Your task to perform on an android device: turn on wifi Image 0: 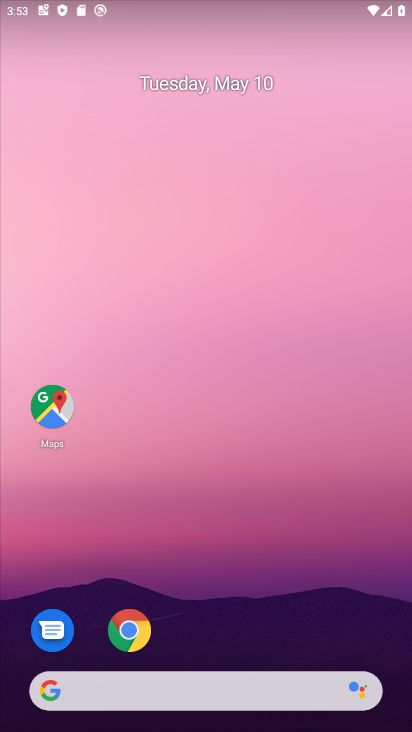
Step 0: drag from (219, 625) to (208, 108)
Your task to perform on an android device: turn on wifi Image 1: 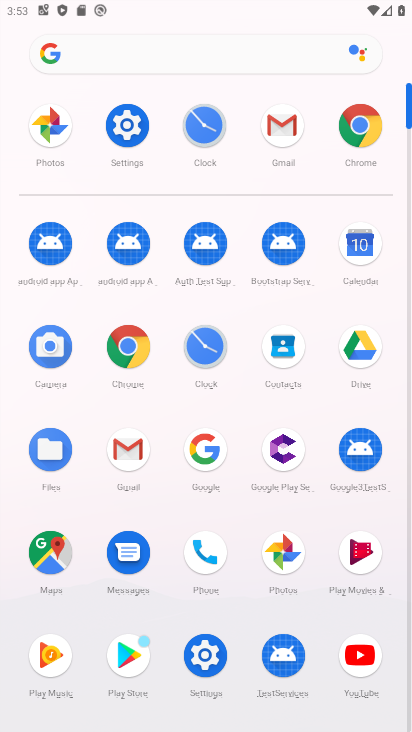
Step 1: drag from (214, 17) to (284, 672)
Your task to perform on an android device: turn on wifi Image 2: 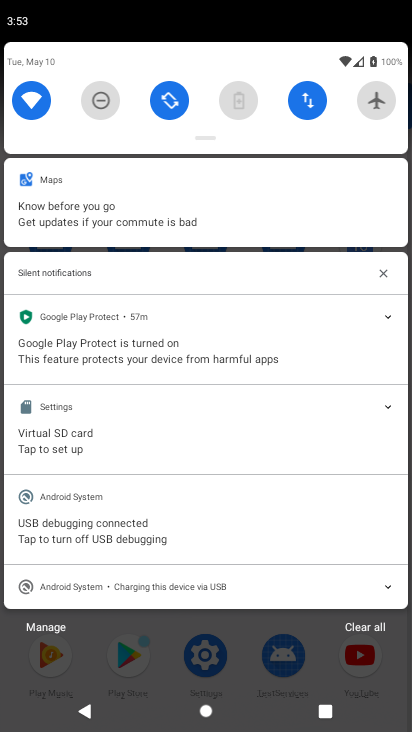
Step 2: click (45, 104)
Your task to perform on an android device: turn on wifi Image 3: 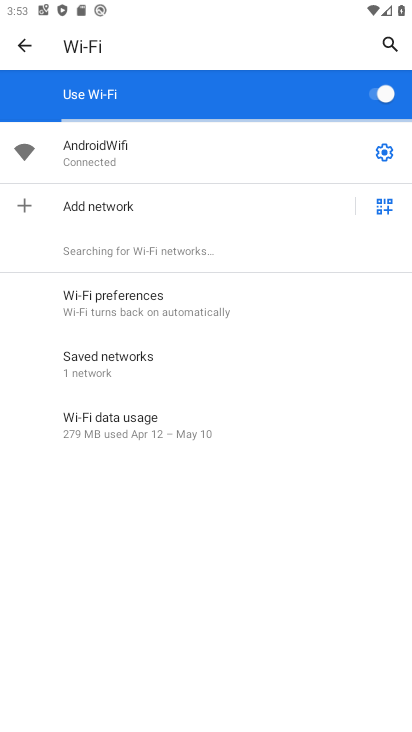
Step 3: task complete